Your task to perform on an android device: make emails show in primary in the gmail app Image 0: 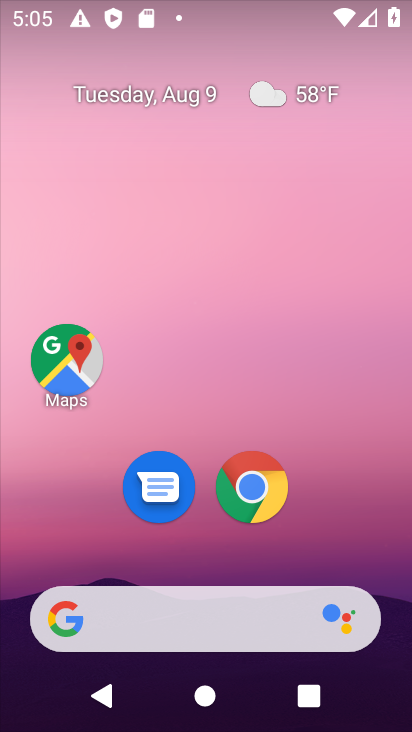
Step 0: drag from (79, 547) to (16, 94)
Your task to perform on an android device: make emails show in primary in the gmail app Image 1: 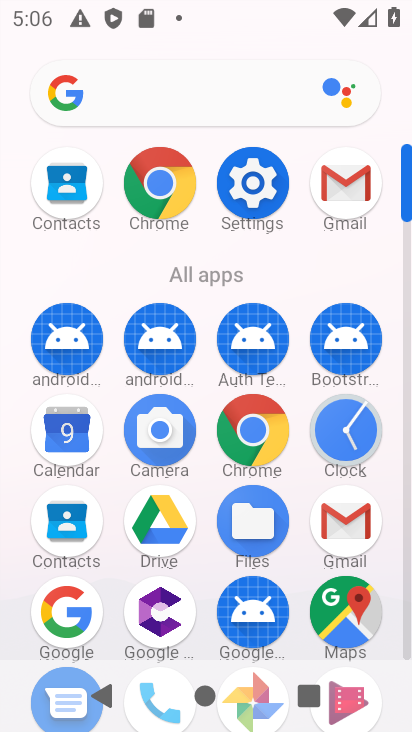
Step 1: click (337, 536)
Your task to perform on an android device: make emails show in primary in the gmail app Image 2: 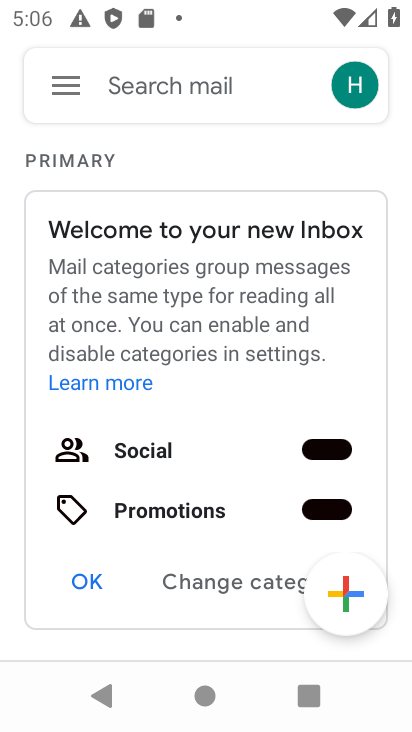
Step 2: drag from (130, 544) to (218, 225)
Your task to perform on an android device: make emails show in primary in the gmail app Image 3: 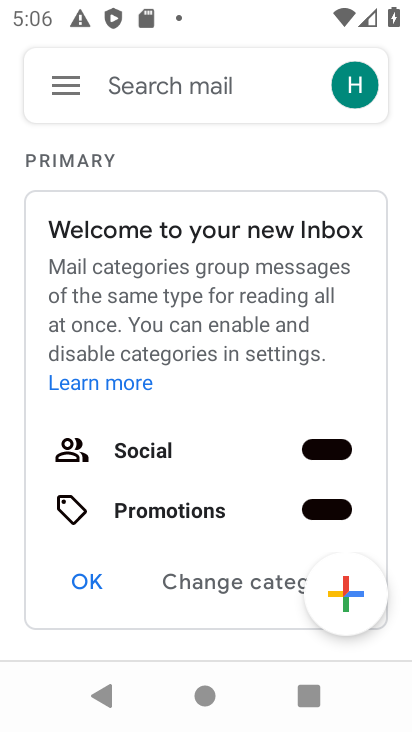
Step 3: click (199, 577)
Your task to perform on an android device: make emails show in primary in the gmail app Image 4: 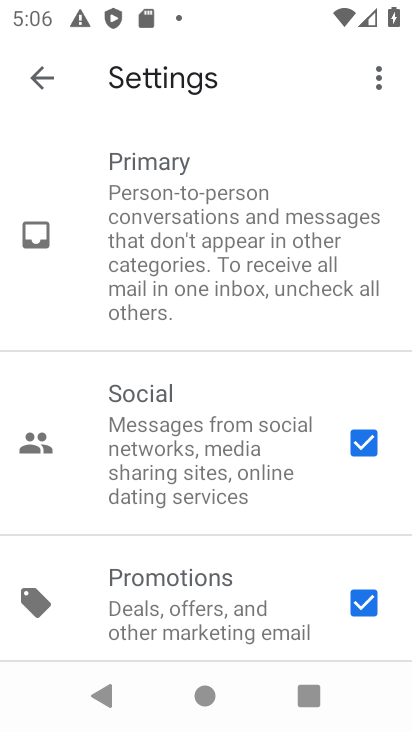
Step 4: click (153, 100)
Your task to perform on an android device: make emails show in primary in the gmail app Image 5: 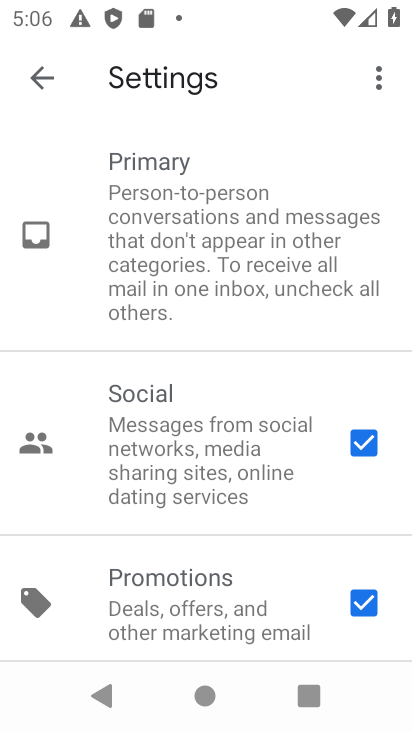
Step 5: click (162, 263)
Your task to perform on an android device: make emails show in primary in the gmail app Image 6: 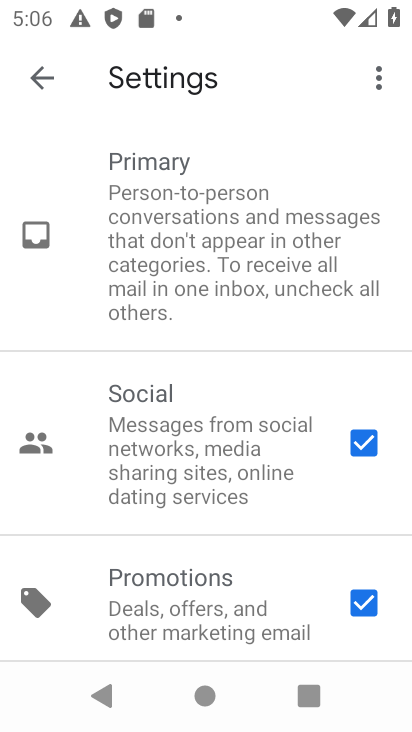
Step 6: drag from (48, 411) to (20, 28)
Your task to perform on an android device: make emails show in primary in the gmail app Image 7: 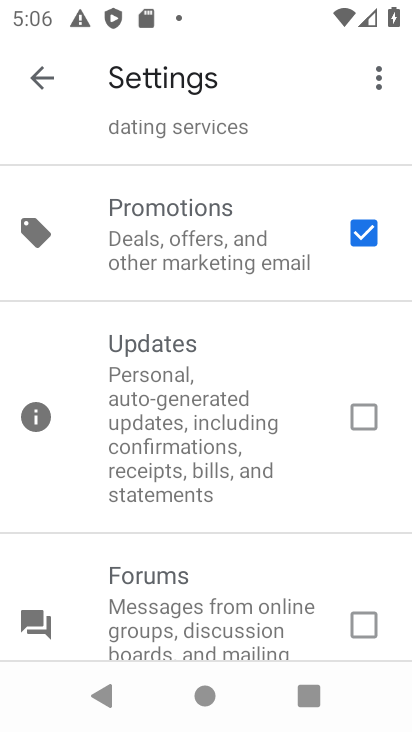
Step 7: drag from (46, 533) to (20, 7)
Your task to perform on an android device: make emails show in primary in the gmail app Image 8: 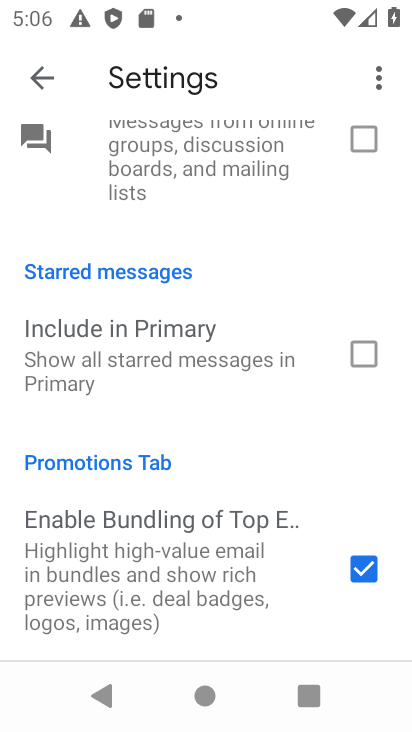
Step 8: click (363, 360)
Your task to perform on an android device: make emails show in primary in the gmail app Image 9: 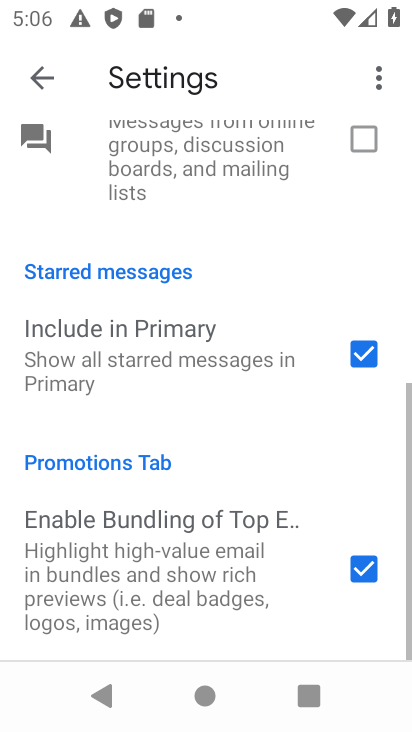
Step 9: task complete